Your task to perform on an android device: Show me productivity apps on the Play Store Image 0: 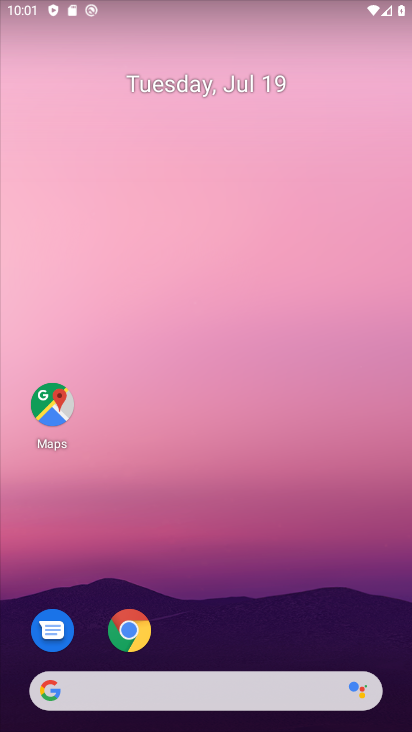
Step 0: drag from (190, 666) to (226, 246)
Your task to perform on an android device: Show me productivity apps on the Play Store Image 1: 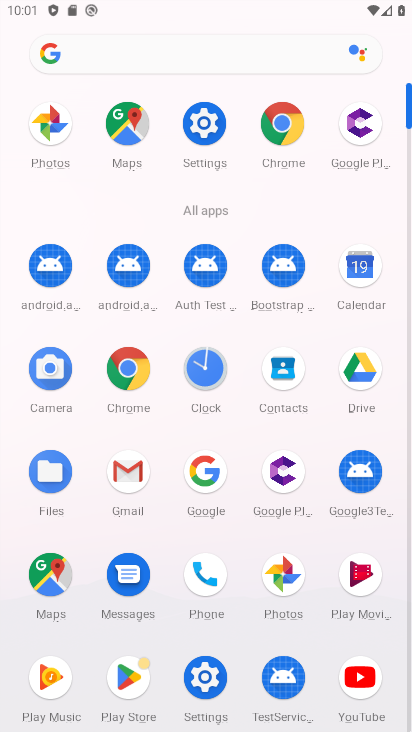
Step 1: click (120, 686)
Your task to perform on an android device: Show me productivity apps on the Play Store Image 2: 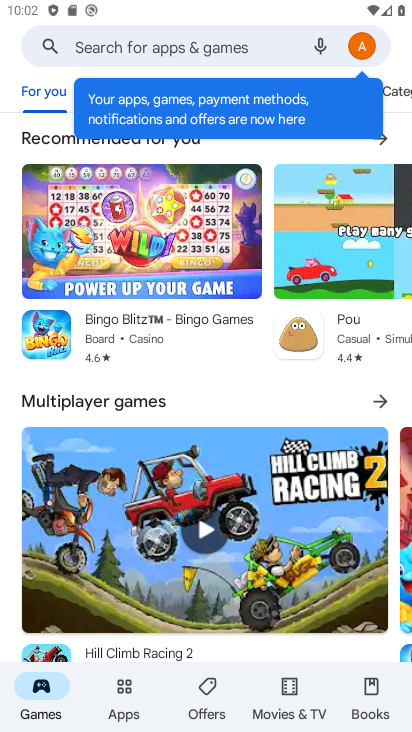
Step 2: drag from (179, 647) to (185, 267)
Your task to perform on an android device: Show me productivity apps on the Play Store Image 3: 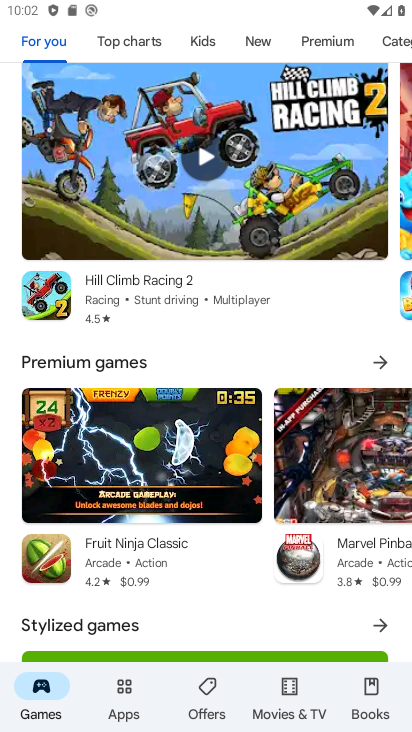
Step 3: click (123, 688)
Your task to perform on an android device: Show me productivity apps on the Play Store Image 4: 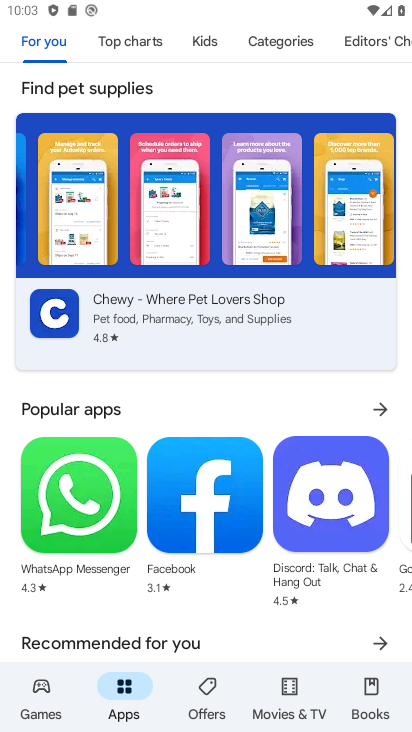
Step 4: task complete